Your task to perform on an android device: Open the calendar app, open the side menu, and click the "Day" option Image 0: 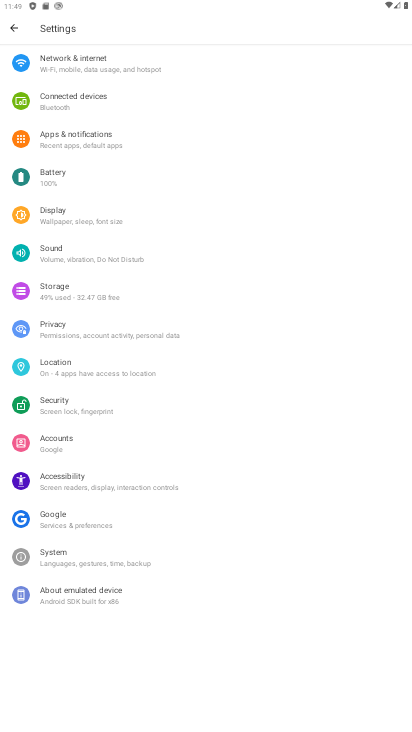
Step 0: press home button
Your task to perform on an android device: Open the calendar app, open the side menu, and click the "Day" option Image 1: 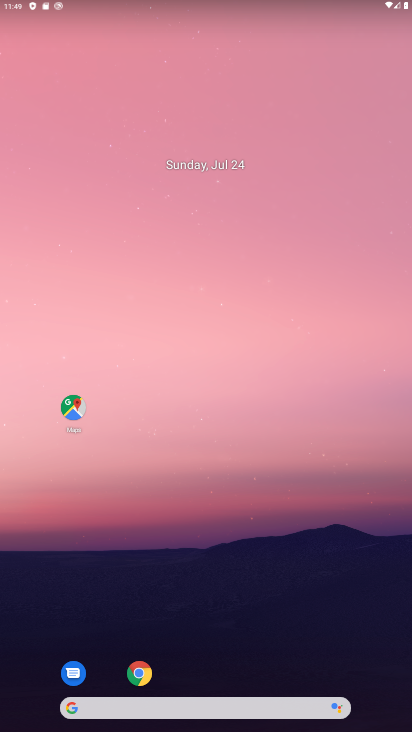
Step 1: drag from (206, 710) to (236, 47)
Your task to perform on an android device: Open the calendar app, open the side menu, and click the "Day" option Image 2: 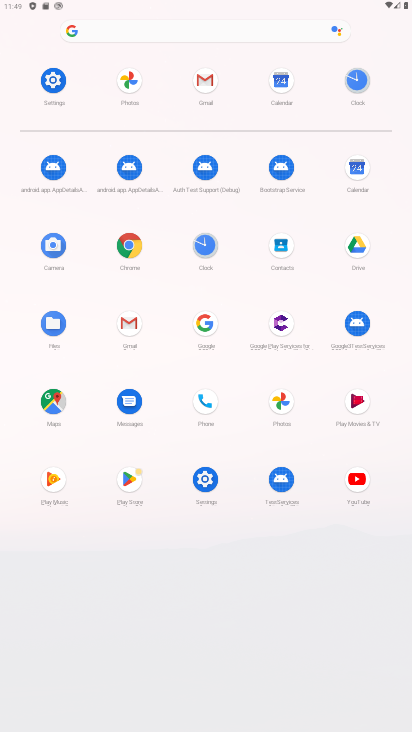
Step 2: click (356, 169)
Your task to perform on an android device: Open the calendar app, open the side menu, and click the "Day" option Image 3: 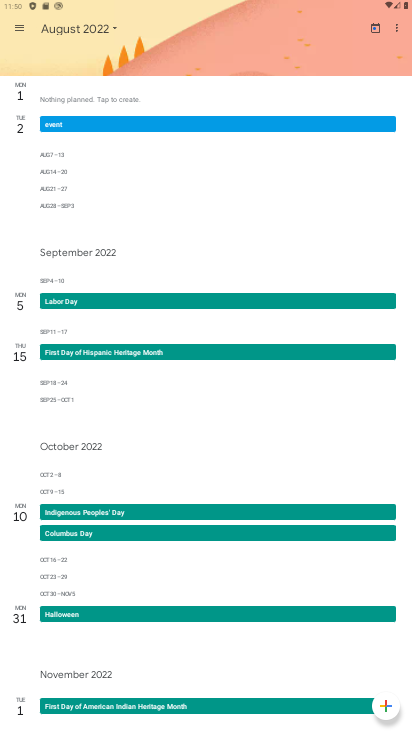
Step 3: click (18, 28)
Your task to perform on an android device: Open the calendar app, open the side menu, and click the "Day" option Image 4: 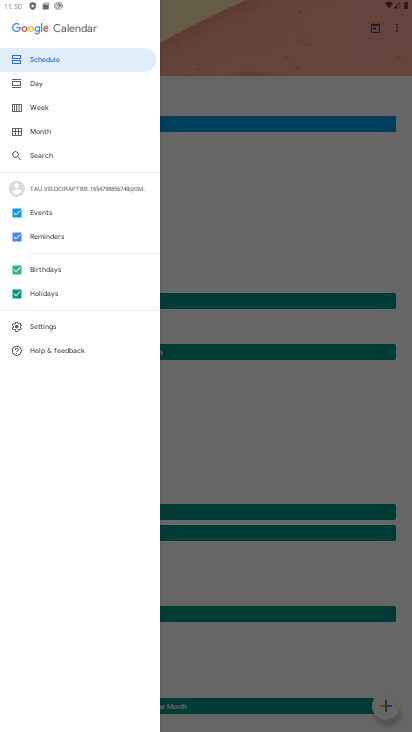
Step 4: click (39, 85)
Your task to perform on an android device: Open the calendar app, open the side menu, and click the "Day" option Image 5: 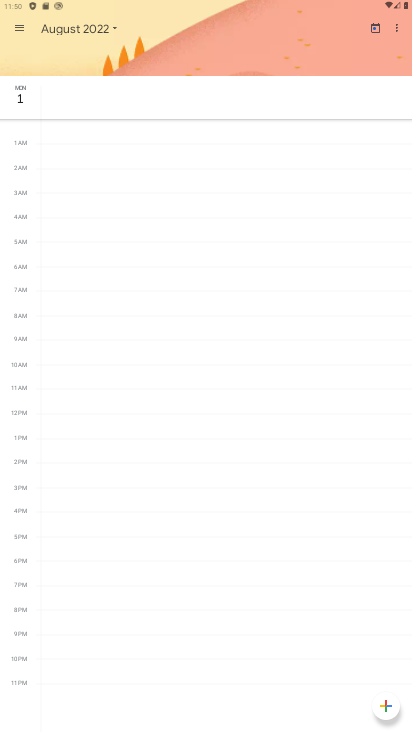
Step 5: task complete